Your task to perform on an android device: Add "lenovo thinkpad" to the cart on costco, then select checkout. Image 0: 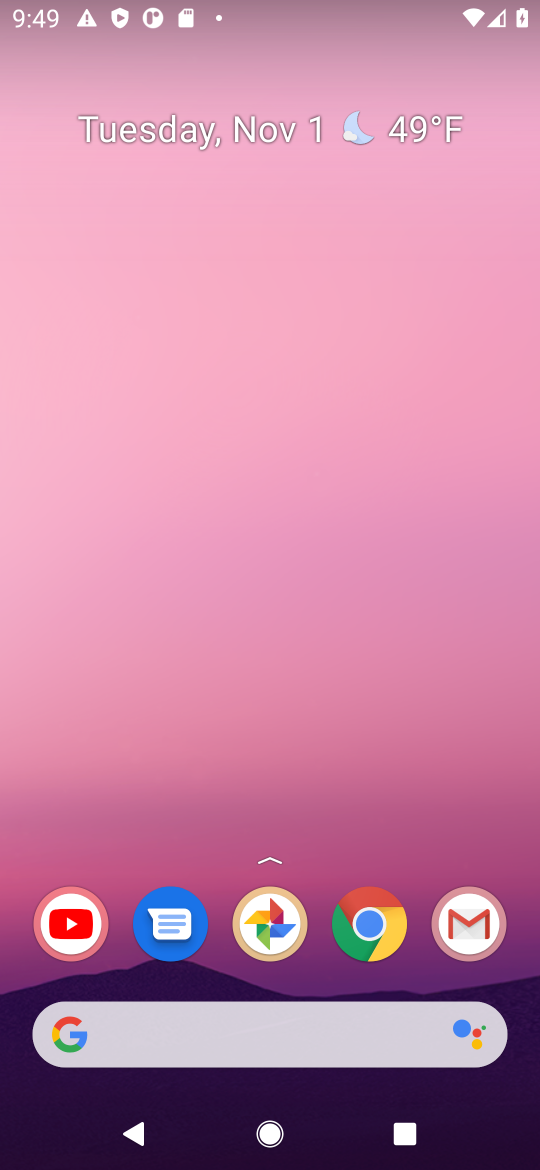
Step 0: click (374, 924)
Your task to perform on an android device: Add "lenovo thinkpad" to the cart on costco, then select checkout. Image 1: 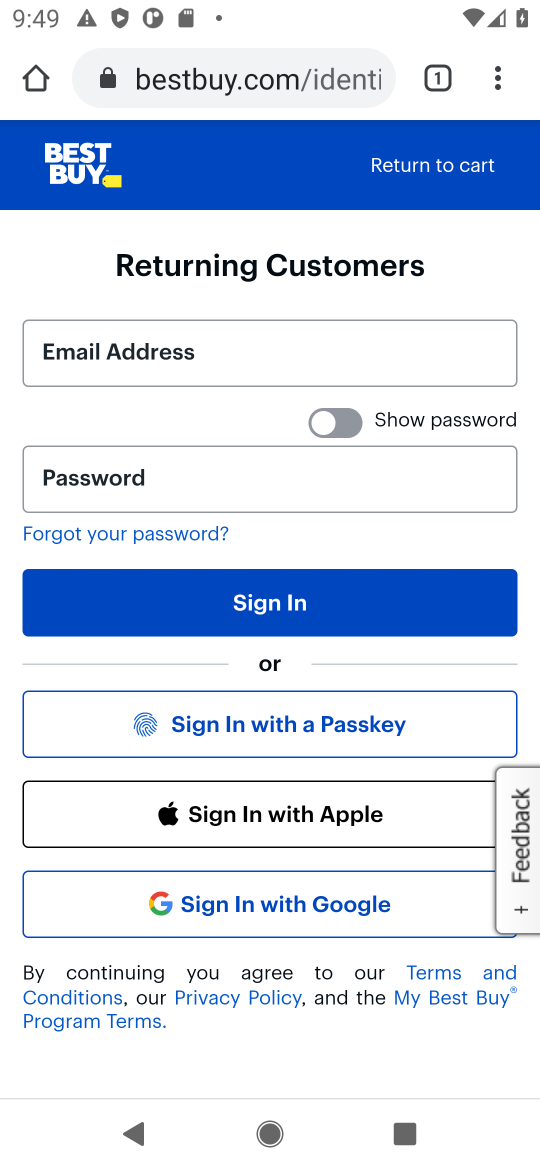
Step 1: click (274, 79)
Your task to perform on an android device: Add "lenovo thinkpad" to the cart on costco, then select checkout. Image 2: 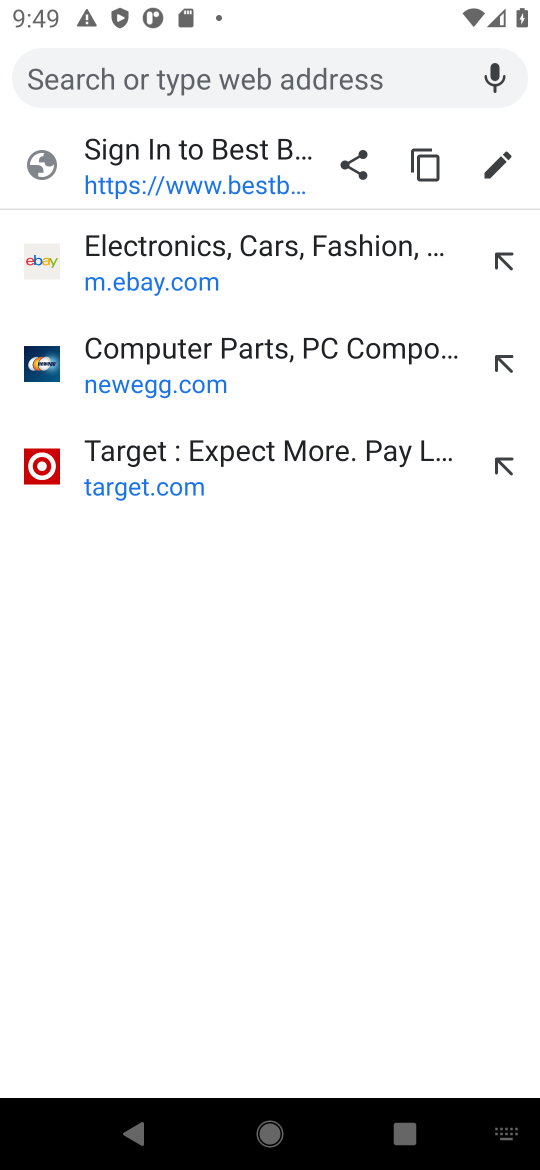
Step 2: type "costco"
Your task to perform on an android device: Add "lenovo thinkpad" to the cart on costco, then select checkout. Image 3: 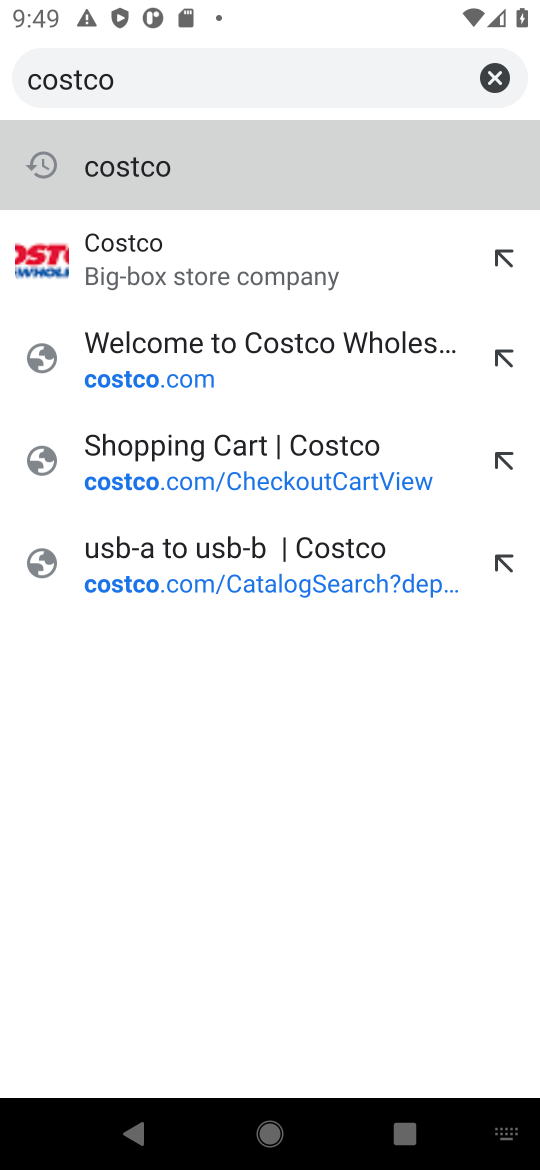
Step 3: press enter
Your task to perform on an android device: Add "lenovo thinkpad" to the cart on costco, then select checkout. Image 4: 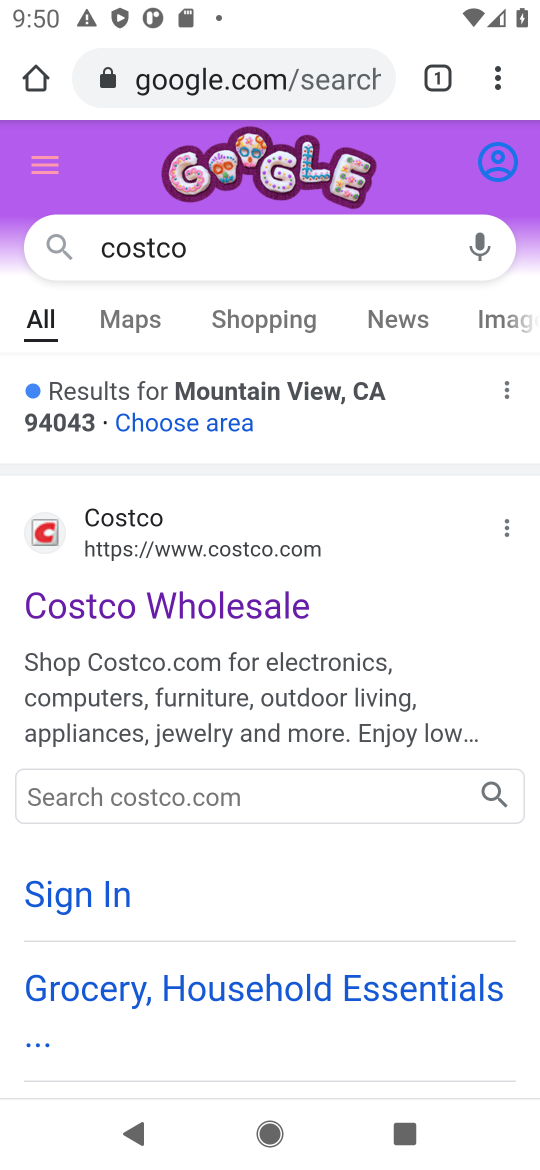
Step 4: click (219, 605)
Your task to perform on an android device: Add "lenovo thinkpad" to the cart on costco, then select checkout. Image 5: 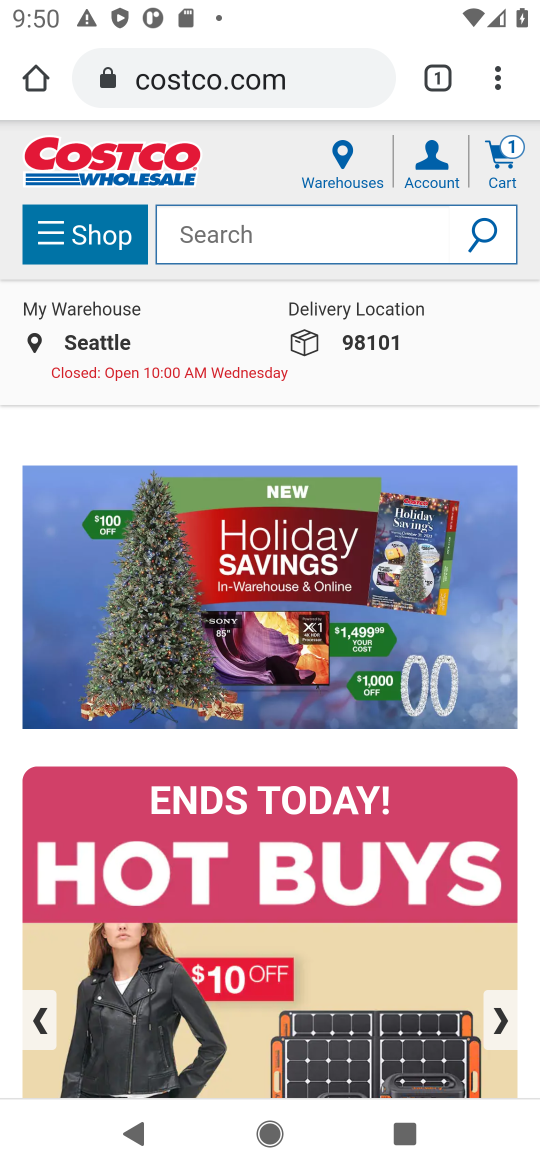
Step 5: click (272, 237)
Your task to perform on an android device: Add "lenovo thinkpad" to the cart on costco, then select checkout. Image 6: 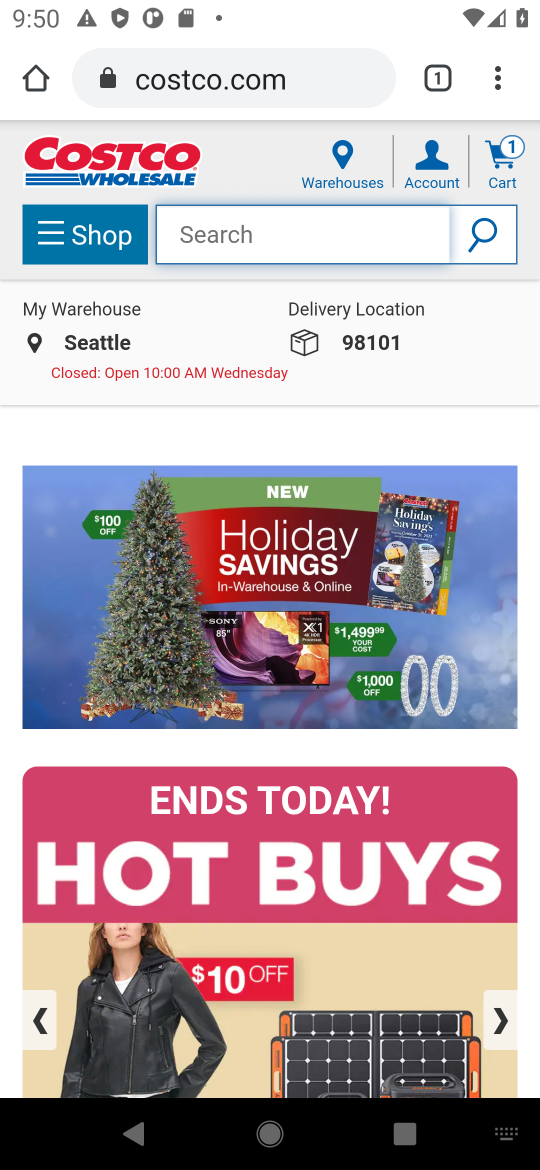
Step 6: type "lenovo thinkpad"
Your task to perform on an android device: Add "lenovo thinkpad" to the cart on costco, then select checkout. Image 7: 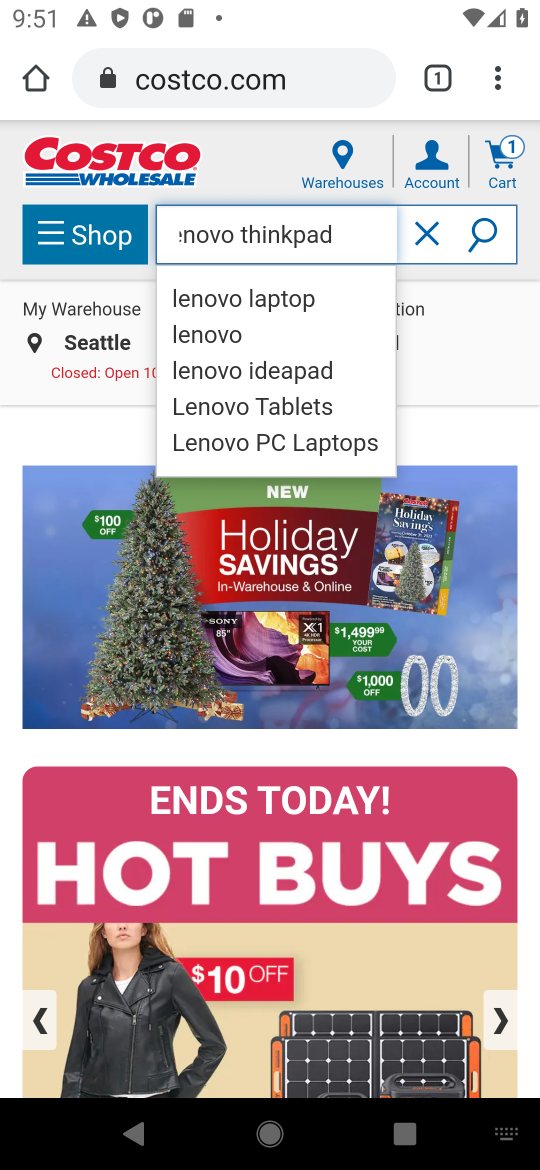
Step 7: click (473, 235)
Your task to perform on an android device: Add "lenovo thinkpad" to the cart on costco, then select checkout. Image 8: 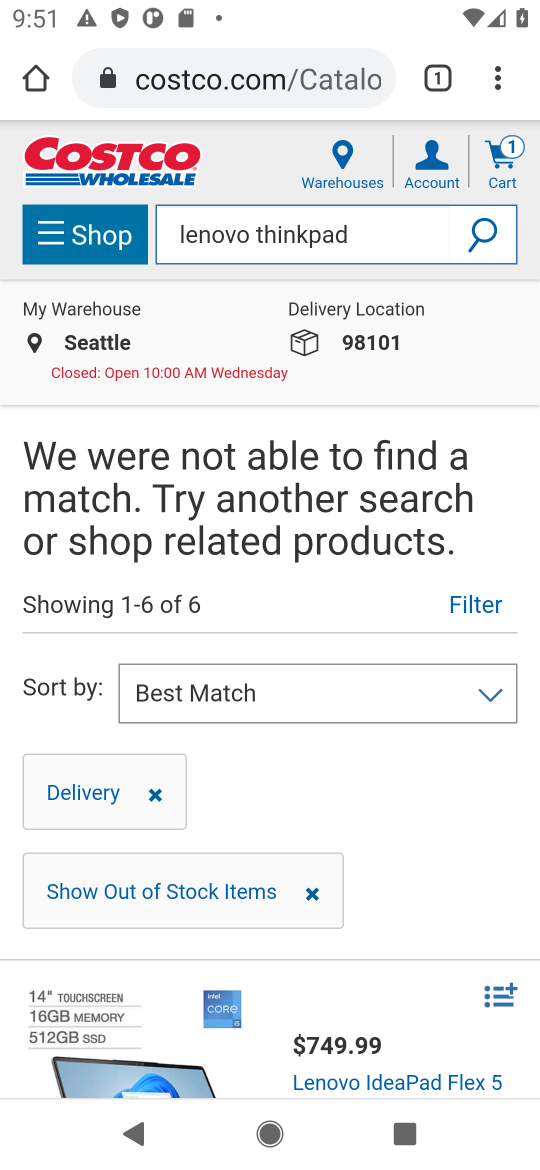
Step 8: task complete